Your task to perform on an android device: Go to sound settings Image 0: 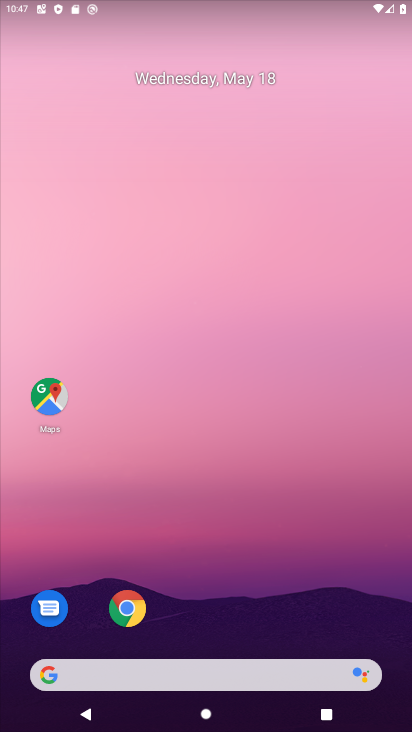
Step 0: press home button
Your task to perform on an android device: Go to sound settings Image 1: 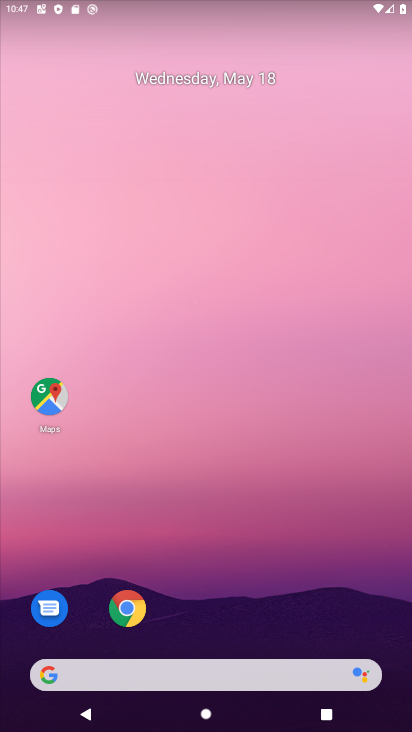
Step 1: drag from (234, 558) to (208, 38)
Your task to perform on an android device: Go to sound settings Image 2: 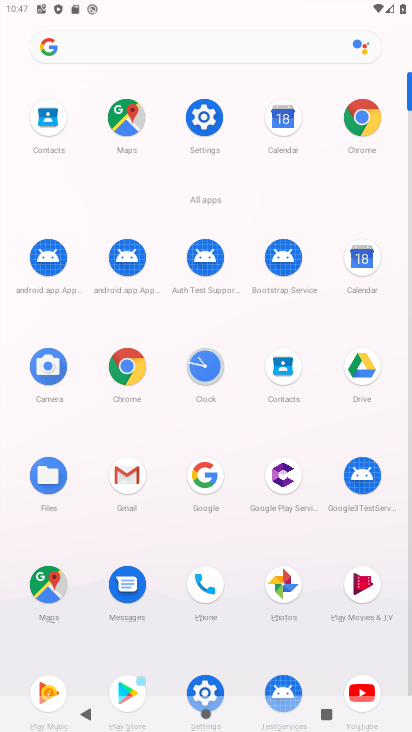
Step 2: click (210, 97)
Your task to perform on an android device: Go to sound settings Image 3: 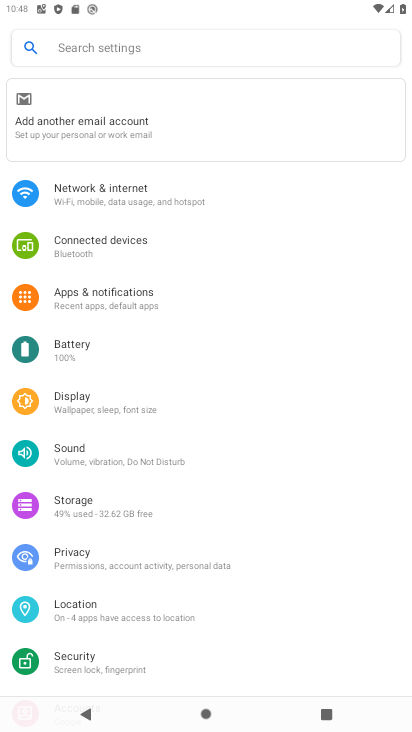
Step 3: click (82, 455)
Your task to perform on an android device: Go to sound settings Image 4: 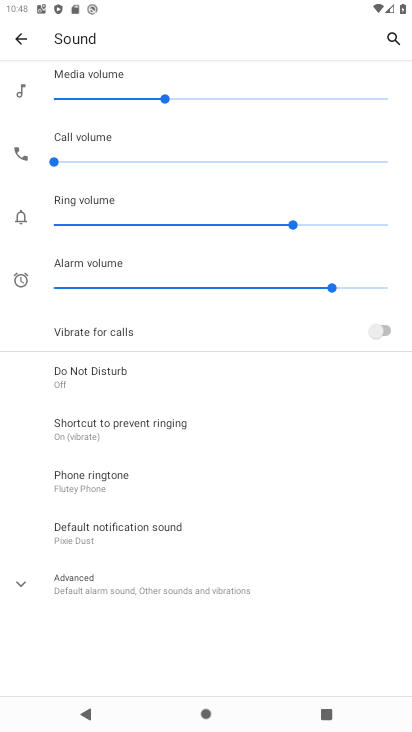
Step 4: task complete